Your task to perform on an android device: open app "DoorDash - Food Delivery" (install if not already installed) and enter user name: "Richard@outlook.com" and password: "informally" Image 0: 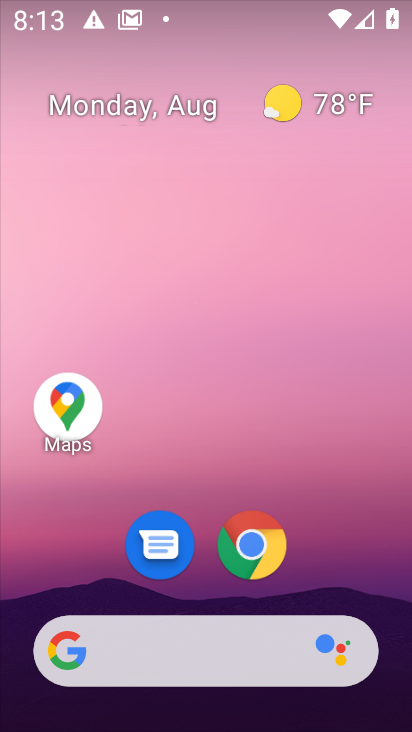
Step 0: press home button
Your task to perform on an android device: open app "DoorDash - Food Delivery" (install if not already installed) and enter user name: "Richard@outlook.com" and password: "informally" Image 1: 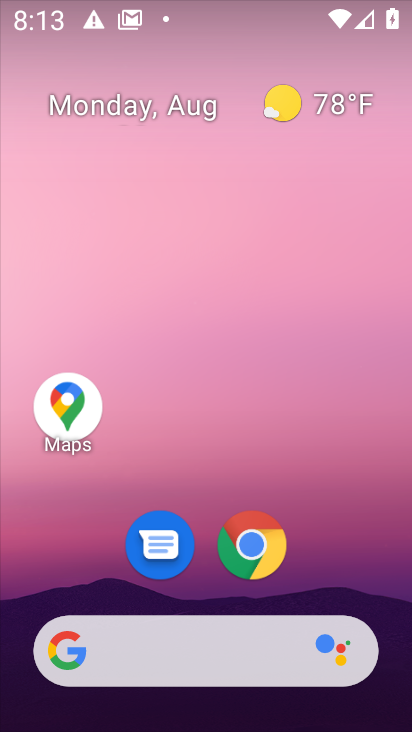
Step 1: drag from (348, 562) to (348, 73)
Your task to perform on an android device: open app "DoorDash - Food Delivery" (install if not already installed) and enter user name: "Richard@outlook.com" and password: "informally" Image 2: 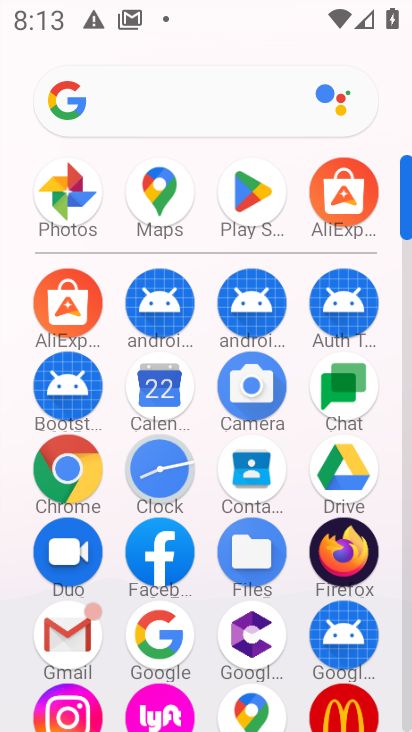
Step 2: click (262, 183)
Your task to perform on an android device: open app "DoorDash - Food Delivery" (install if not already installed) and enter user name: "Richard@outlook.com" and password: "informally" Image 3: 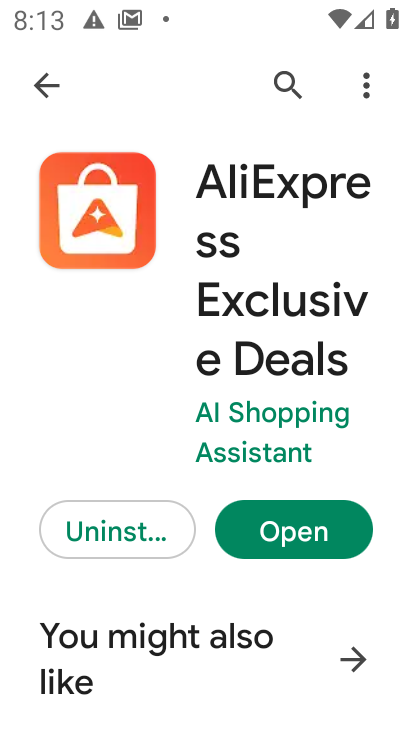
Step 3: press back button
Your task to perform on an android device: open app "DoorDash - Food Delivery" (install if not already installed) and enter user name: "Richard@outlook.com" and password: "informally" Image 4: 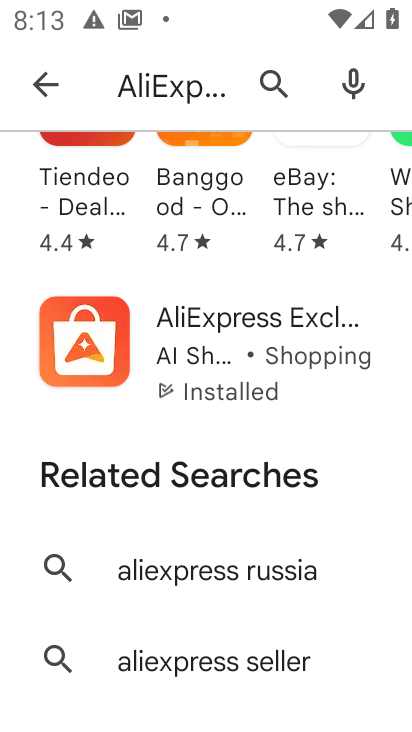
Step 4: press back button
Your task to perform on an android device: open app "DoorDash - Food Delivery" (install if not already installed) and enter user name: "Richard@outlook.com" and password: "informally" Image 5: 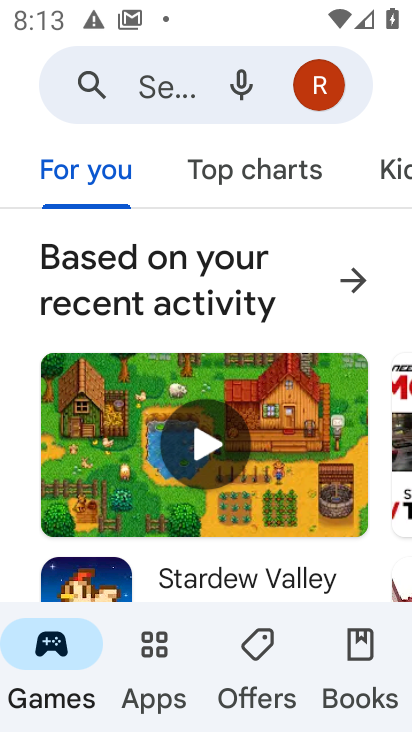
Step 5: click (161, 87)
Your task to perform on an android device: open app "DoorDash - Food Delivery" (install if not already installed) and enter user name: "Richard@outlook.com" and password: "informally" Image 6: 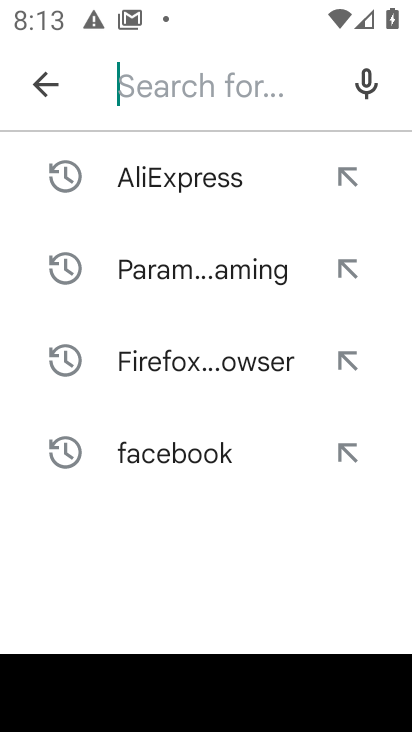
Step 6: type "DoorDash - Food Delivery"
Your task to perform on an android device: open app "DoorDash - Food Delivery" (install if not already installed) and enter user name: "Richard@outlook.com" and password: "informally" Image 7: 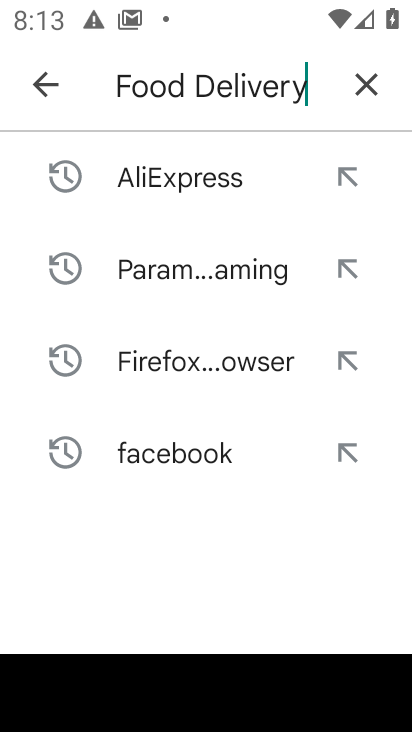
Step 7: press enter
Your task to perform on an android device: open app "DoorDash - Food Delivery" (install if not already installed) and enter user name: "Richard@outlook.com" and password: "informally" Image 8: 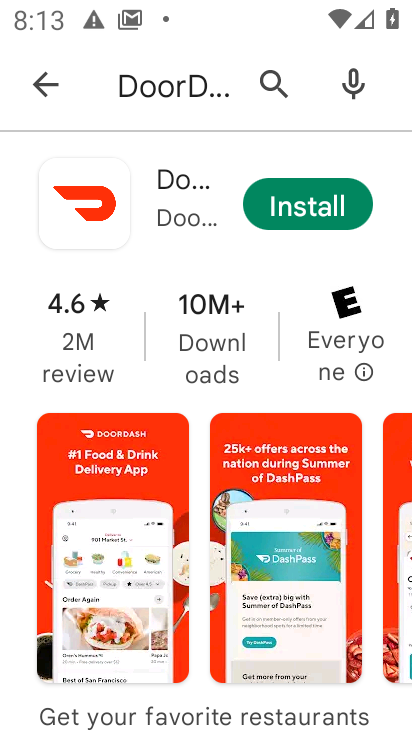
Step 8: click (293, 207)
Your task to perform on an android device: open app "DoorDash - Food Delivery" (install if not already installed) and enter user name: "Richard@outlook.com" and password: "informally" Image 9: 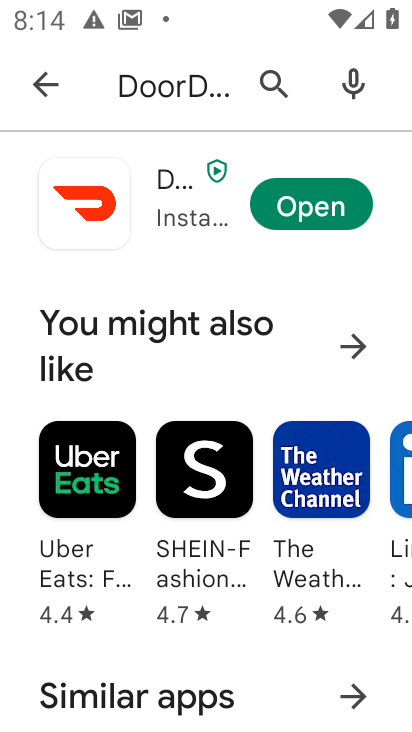
Step 9: click (334, 213)
Your task to perform on an android device: open app "DoorDash - Food Delivery" (install if not already installed) and enter user name: "Richard@outlook.com" and password: "informally" Image 10: 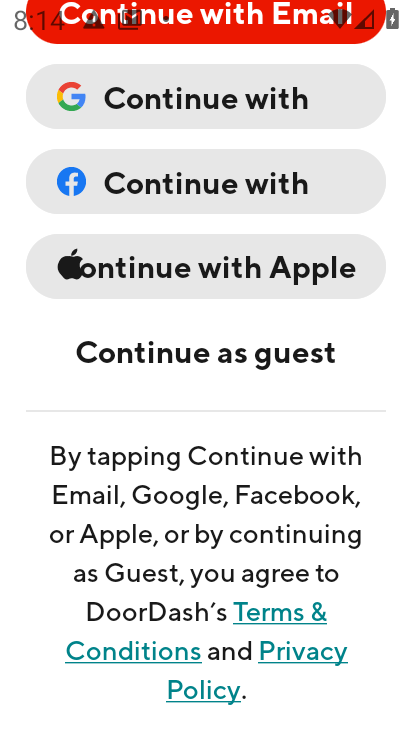
Step 10: drag from (394, 81) to (368, 500)
Your task to perform on an android device: open app "DoorDash - Food Delivery" (install if not already installed) and enter user name: "Richard@outlook.com" and password: "informally" Image 11: 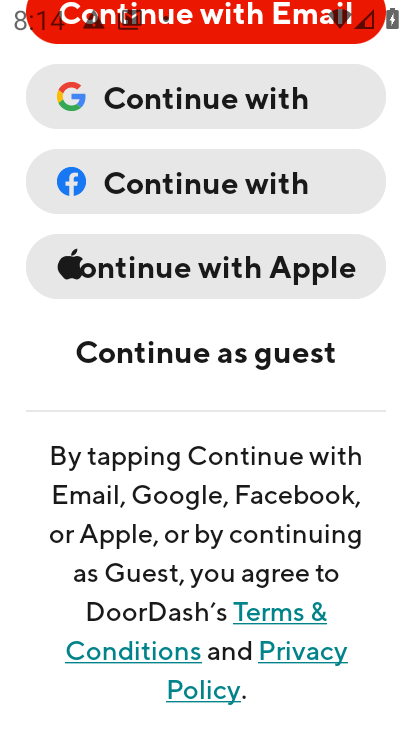
Step 11: click (219, 11)
Your task to perform on an android device: open app "DoorDash - Food Delivery" (install if not already installed) and enter user name: "Richard@outlook.com" and password: "informally" Image 12: 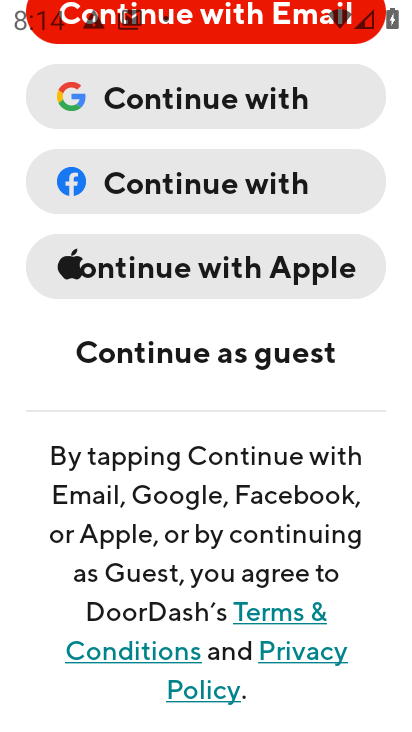
Step 12: click (211, 23)
Your task to perform on an android device: open app "DoorDash - Food Delivery" (install if not already installed) and enter user name: "Richard@outlook.com" and password: "informally" Image 13: 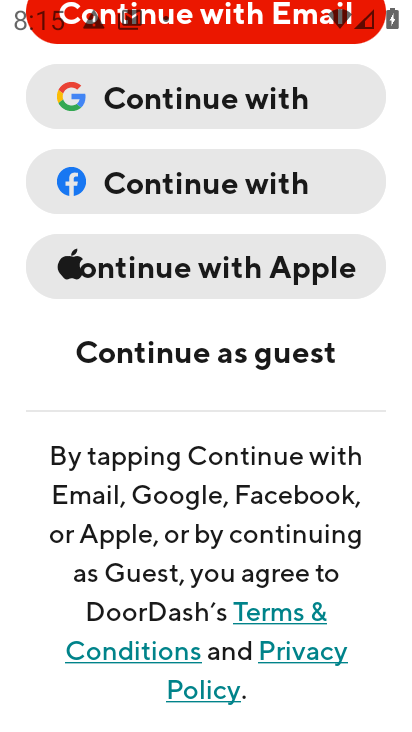
Step 13: drag from (358, 473) to (359, 196)
Your task to perform on an android device: open app "DoorDash - Food Delivery" (install if not already installed) and enter user name: "Richard@outlook.com" and password: "informally" Image 14: 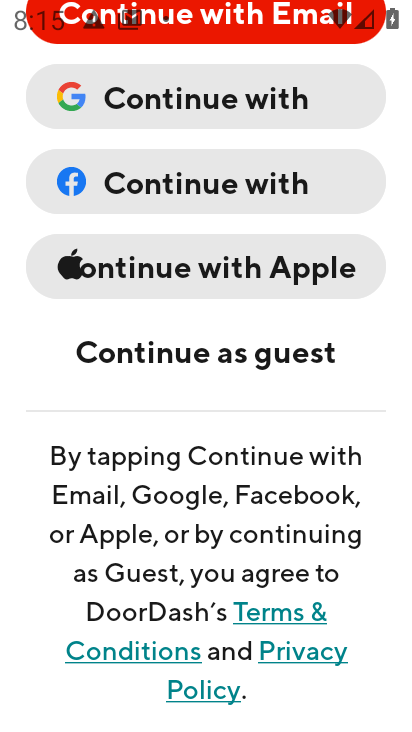
Step 14: drag from (403, 112) to (391, 395)
Your task to perform on an android device: open app "DoorDash - Food Delivery" (install if not already installed) and enter user name: "Richard@outlook.com" and password: "informally" Image 15: 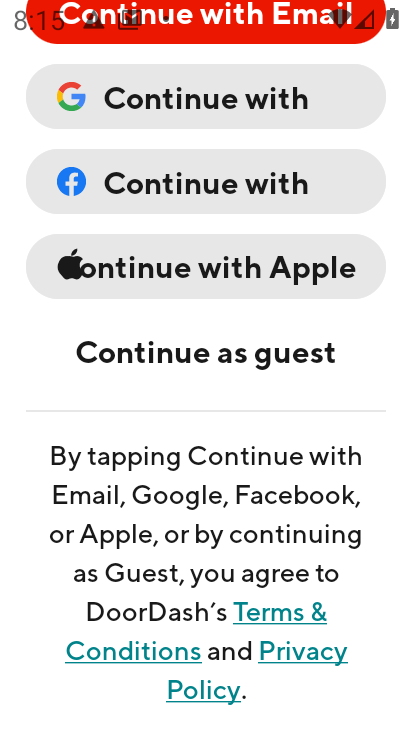
Step 15: click (212, 30)
Your task to perform on an android device: open app "DoorDash - Food Delivery" (install if not already installed) and enter user name: "Richard@outlook.com" and password: "informally" Image 16: 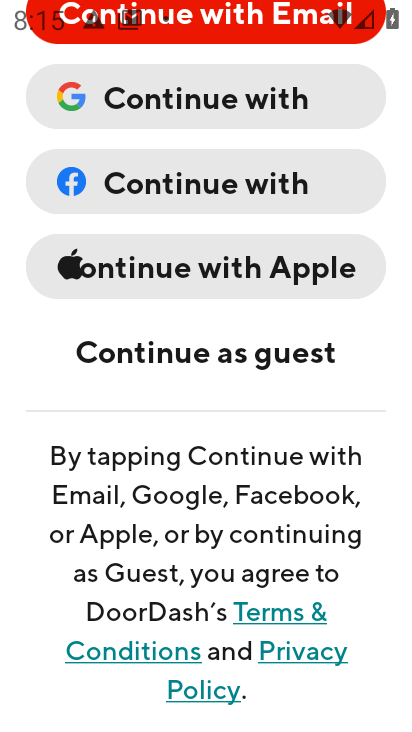
Step 16: task complete